Your task to perform on an android device: What's the weather? Image 0: 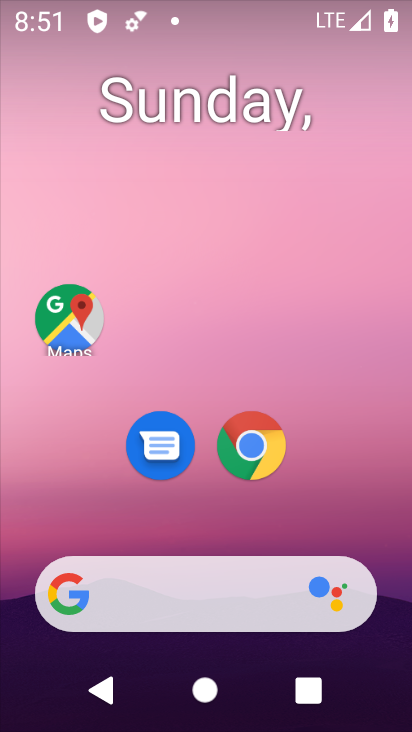
Step 0: drag from (200, 500) to (155, 162)
Your task to perform on an android device: What's the weather? Image 1: 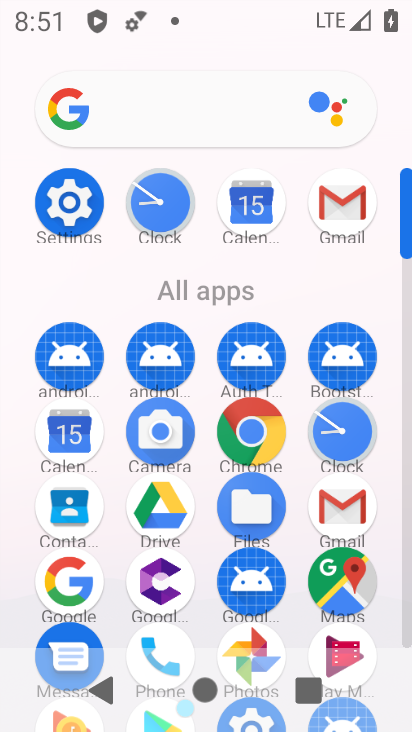
Step 1: click (59, 574)
Your task to perform on an android device: What's the weather? Image 2: 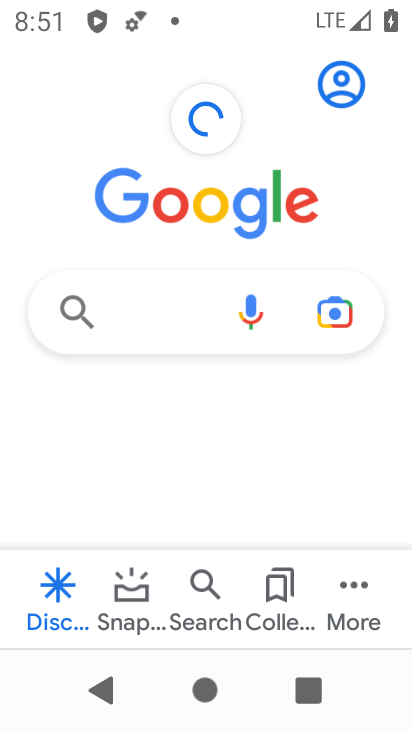
Step 2: click (169, 298)
Your task to perform on an android device: What's the weather? Image 3: 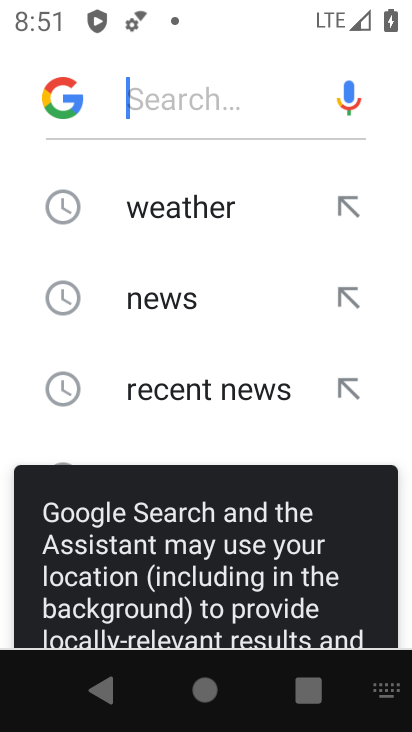
Step 3: click (194, 209)
Your task to perform on an android device: What's the weather? Image 4: 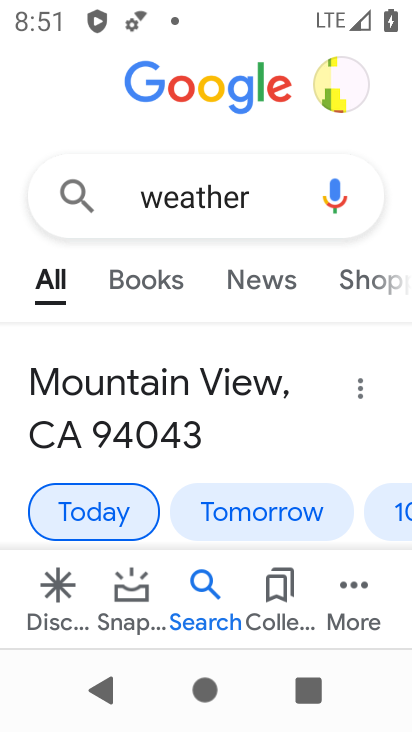
Step 4: task complete